Your task to perform on an android device: What's the weather today? Image 0: 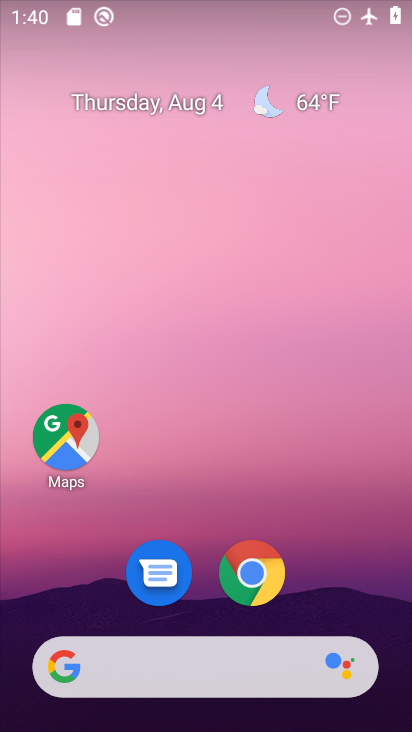
Step 0: drag from (350, 579) to (249, 593)
Your task to perform on an android device: What's the weather today? Image 1: 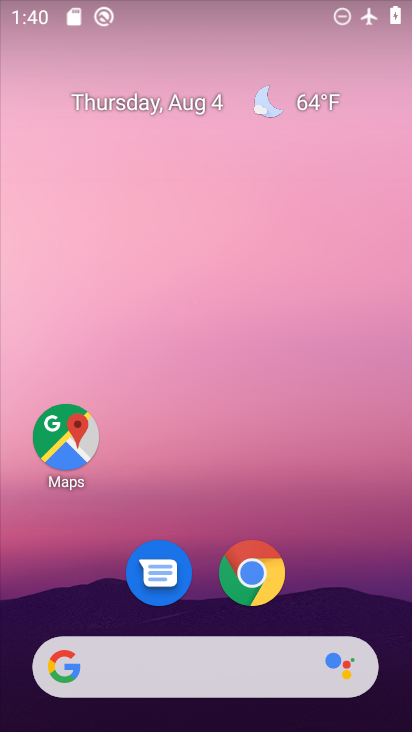
Step 1: click (329, 88)
Your task to perform on an android device: What's the weather today? Image 2: 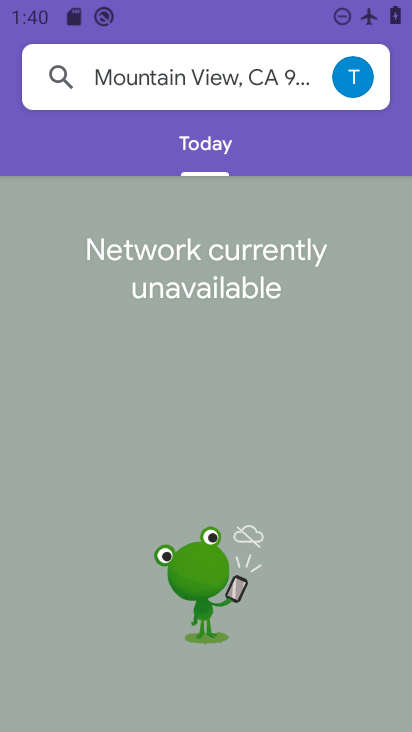
Step 2: task complete